Your task to perform on an android device: move an email to a new category in the gmail app Image 0: 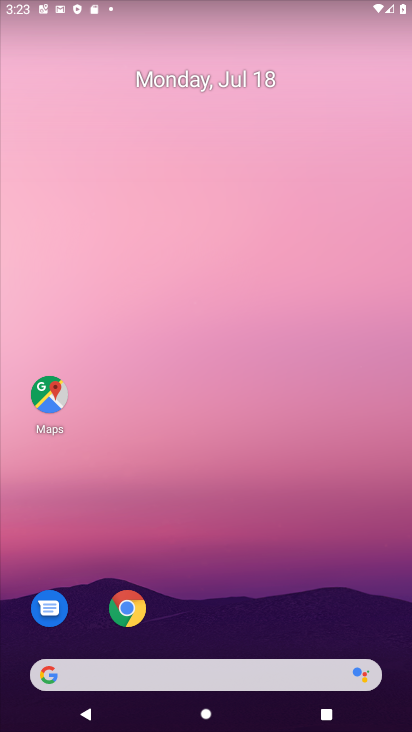
Step 0: drag from (218, 635) to (237, 290)
Your task to perform on an android device: move an email to a new category in the gmail app Image 1: 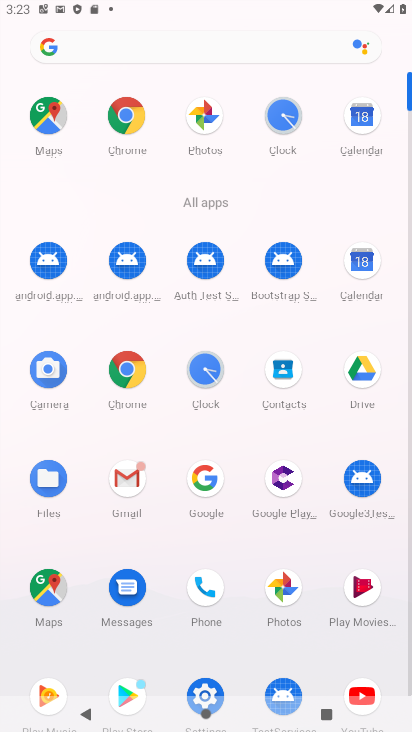
Step 1: click (132, 483)
Your task to perform on an android device: move an email to a new category in the gmail app Image 2: 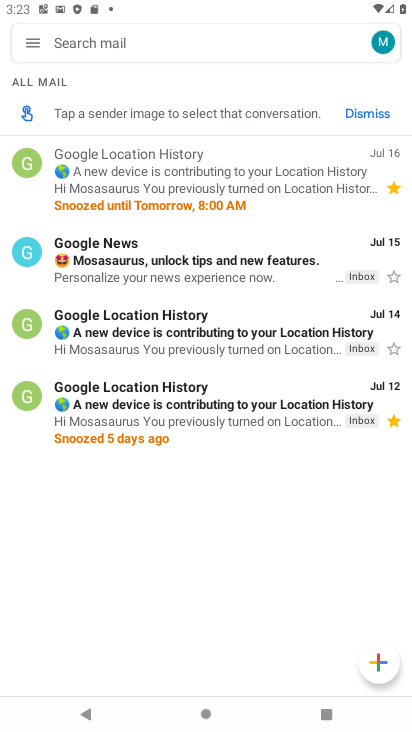
Step 2: click (186, 175)
Your task to perform on an android device: move an email to a new category in the gmail app Image 3: 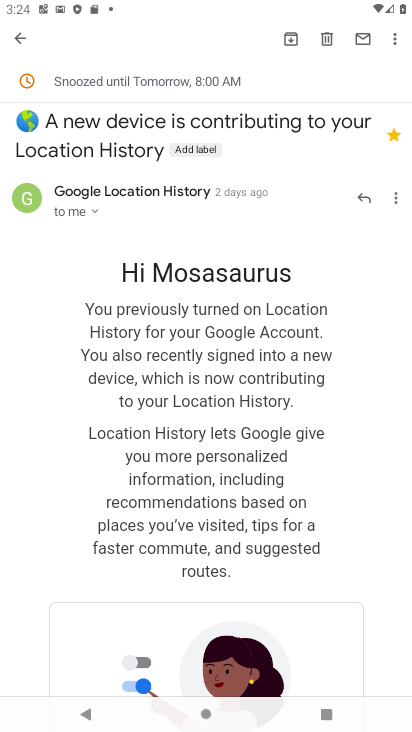
Step 3: click (391, 43)
Your task to perform on an android device: move an email to a new category in the gmail app Image 4: 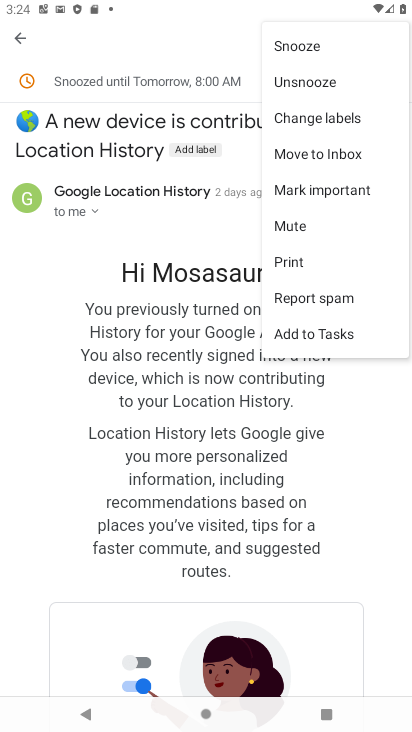
Step 4: click (346, 112)
Your task to perform on an android device: move an email to a new category in the gmail app Image 5: 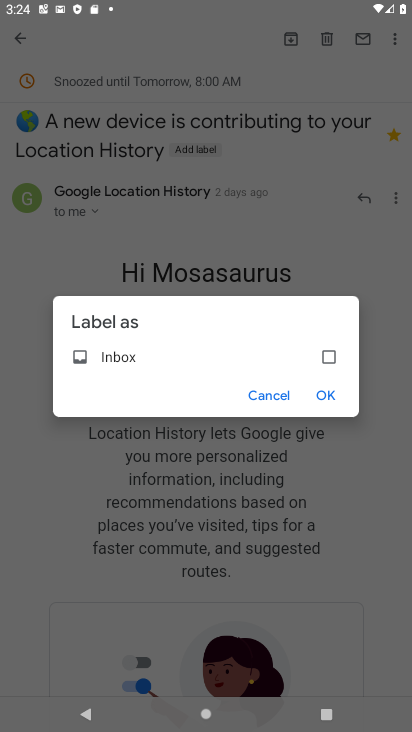
Step 5: click (331, 354)
Your task to perform on an android device: move an email to a new category in the gmail app Image 6: 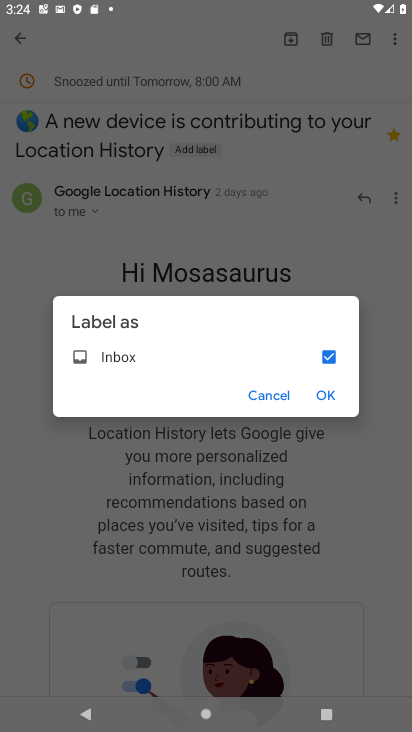
Step 6: click (324, 396)
Your task to perform on an android device: move an email to a new category in the gmail app Image 7: 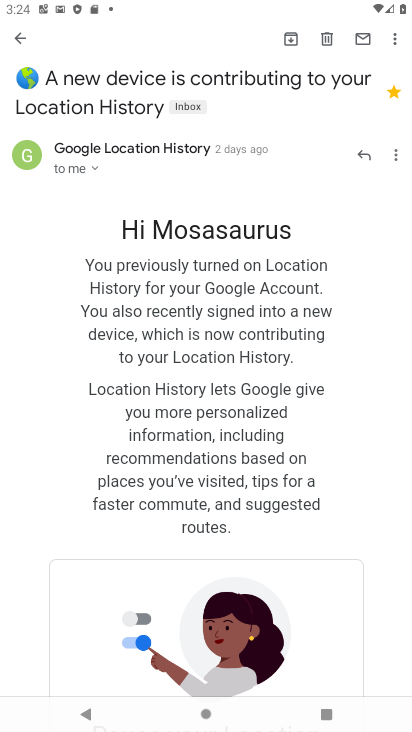
Step 7: task complete